Your task to perform on an android device: snooze an email in the gmail app Image 0: 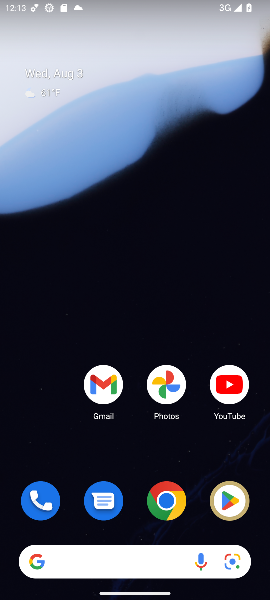
Step 0: click (99, 383)
Your task to perform on an android device: snooze an email in the gmail app Image 1: 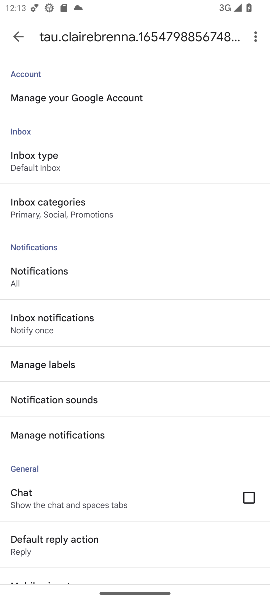
Step 1: click (18, 38)
Your task to perform on an android device: snooze an email in the gmail app Image 2: 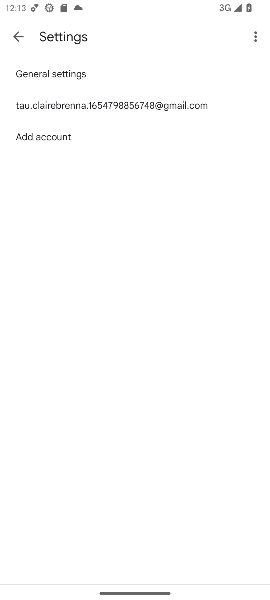
Step 2: click (19, 38)
Your task to perform on an android device: snooze an email in the gmail app Image 3: 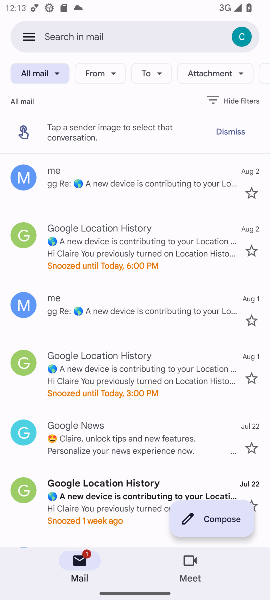
Step 3: click (101, 171)
Your task to perform on an android device: snooze an email in the gmail app Image 4: 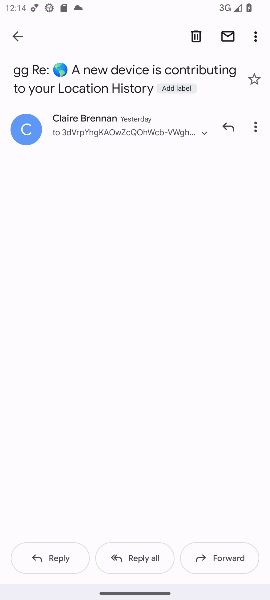
Step 4: click (254, 35)
Your task to perform on an android device: snooze an email in the gmail app Image 5: 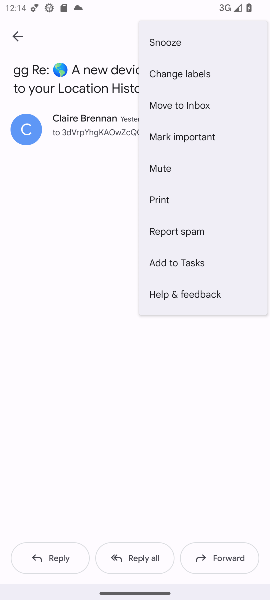
Step 5: click (179, 40)
Your task to perform on an android device: snooze an email in the gmail app Image 6: 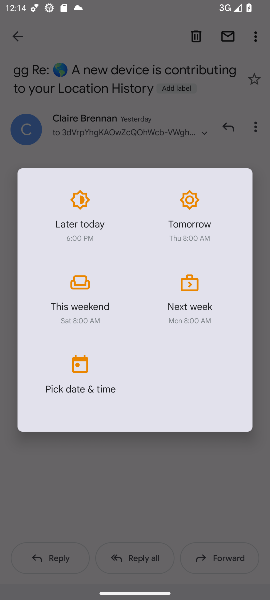
Step 6: click (80, 217)
Your task to perform on an android device: snooze an email in the gmail app Image 7: 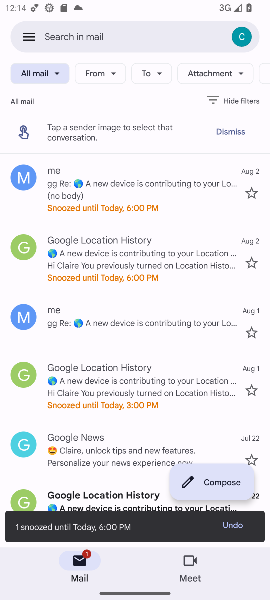
Step 7: task complete